Your task to perform on an android device: turn on priority inbox in the gmail app Image 0: 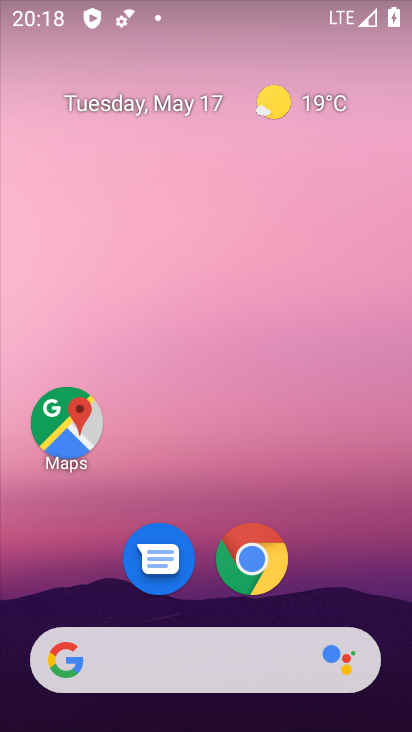
Step 0: drag from (213, 558) to (226, 135)
Your task to perform on an android device: turn on priority inbox in the gmail app Image 1: 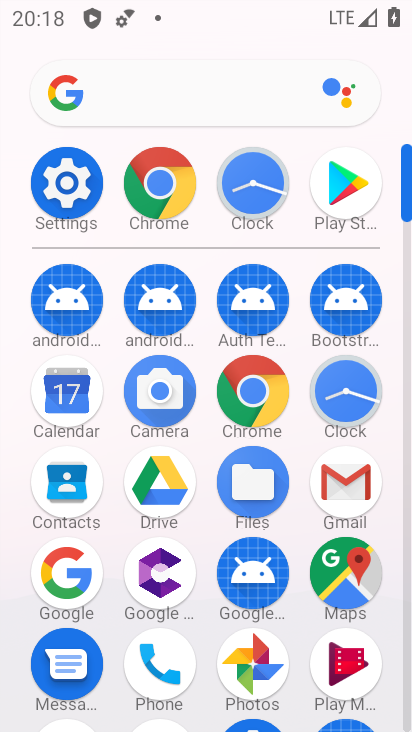
Step 1: click (363, 484)
Your task to perform on an android device: turn on priority inbox in the gmail app Image 2: 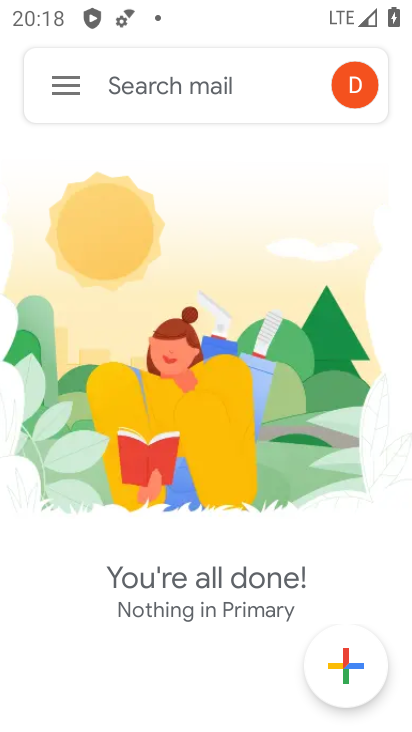
Step 2: click (58, 101)
Your task to perform on an android device: turn on priority inbox in the gmail app Image 3: 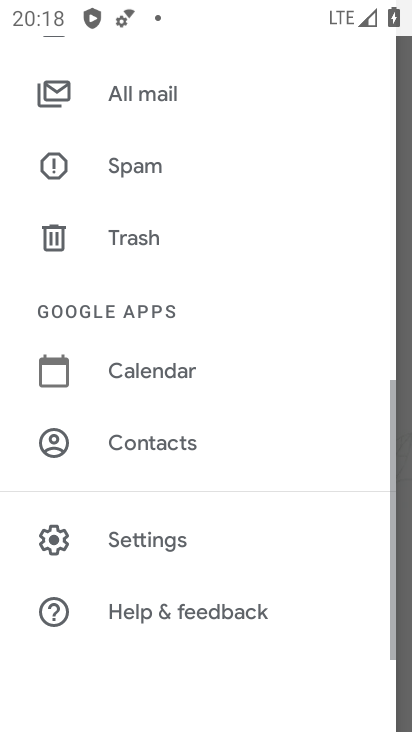
Step 3: click (135, 531)
Your task to perform on an android device: turn on priority inbox in the gmail app Image 4: 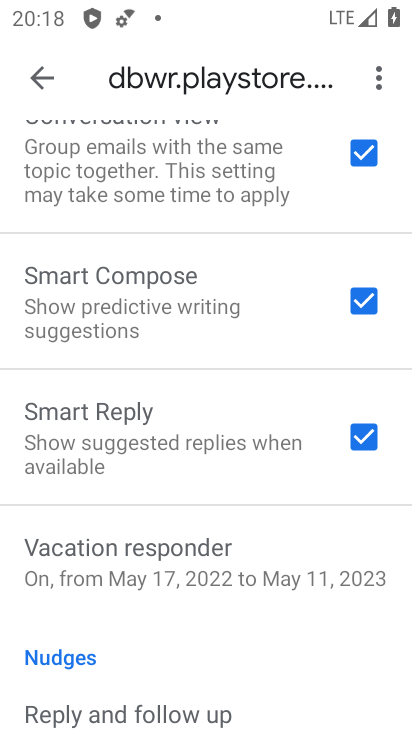
Step 4: drag from (114, 255) to (289, 727)
Your task to perform on an android device: turn on priority inbox in the gmail app Image 5: 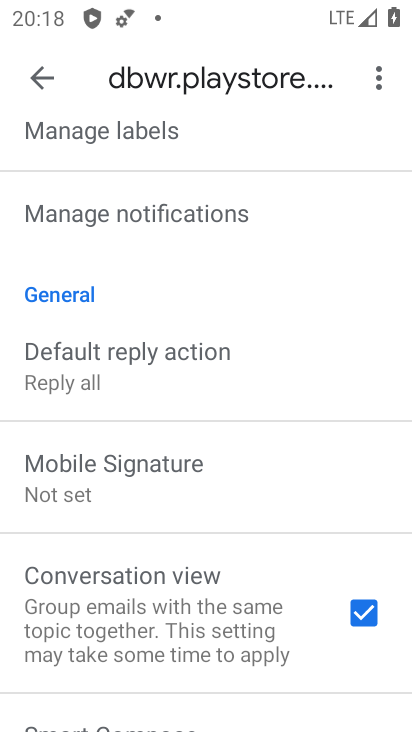
Step 5: drag from (123, 286) to (357, 730)
Your task to perform on an android device: turn on priority inbox in the gmail app Image 6: 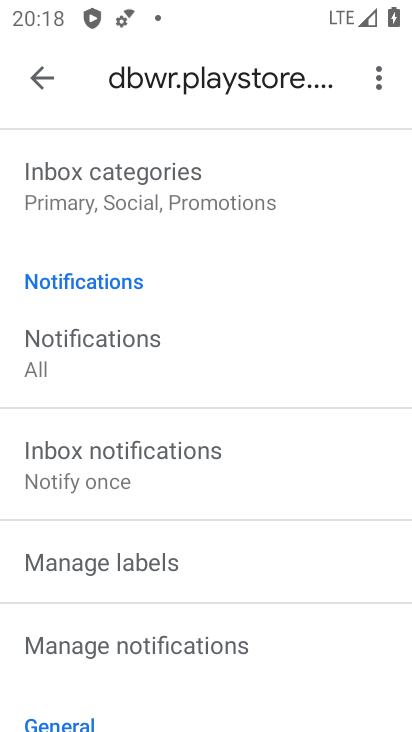
Step 6: drag from (174, 253) to (312, 724)
Your task to perform on an android device: turn on priority inbox in the gmail app Image 7: 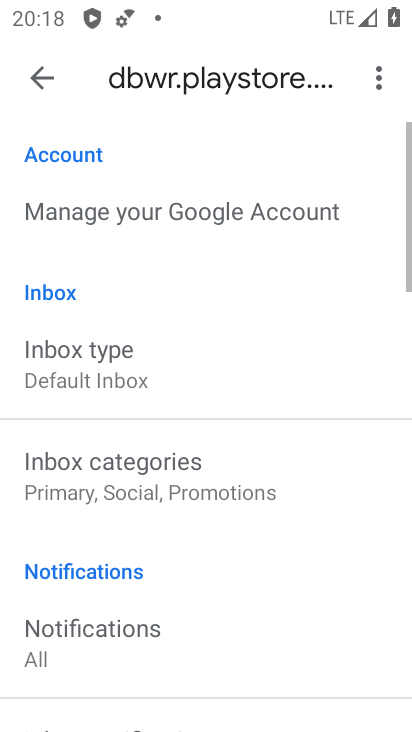
Step 7: click (137, 364)
Your task to perform on an android device: turn on priority inbox in the gmail app Image 8: 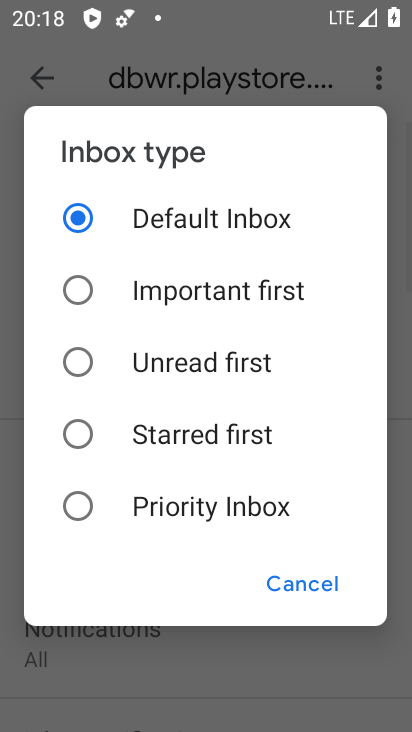
Step 8: click (121, 498)
Your task to perform on an android device: turn on priority inbox in the gmail app Image 9: 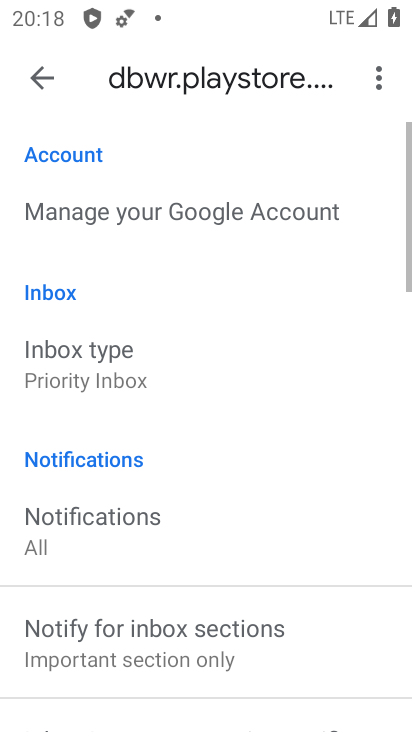
Step 9: task complete